Your task to perform on an android device: Open location settings Image 0: 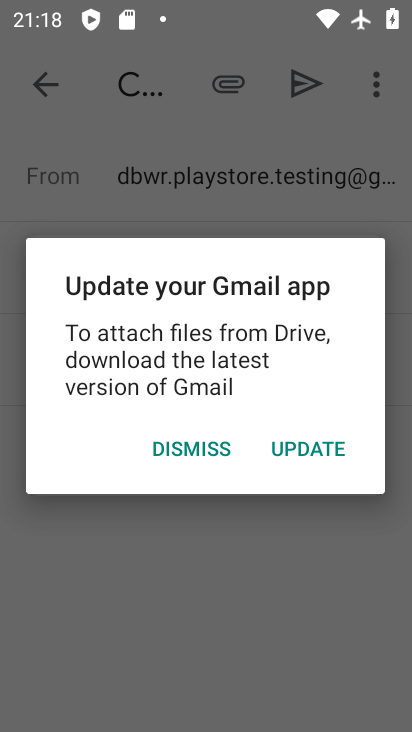
Step 0: press home button
Your task to perform on an android device: Open location settings Image 1: 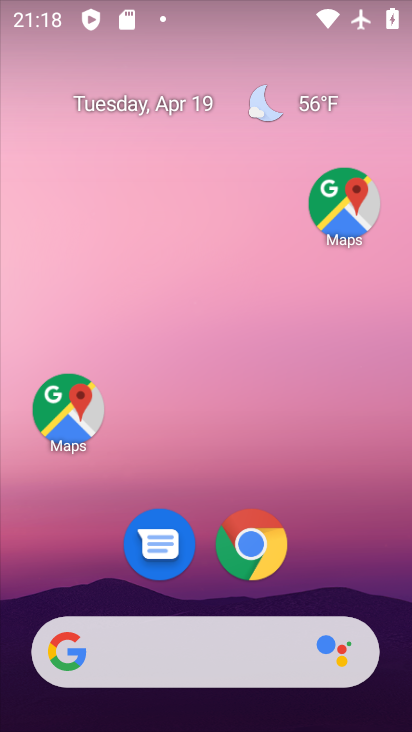
Step 1: drag from (167, 653) to (357, 51)
Your task to perform on an android device: Open location settings Image 2: 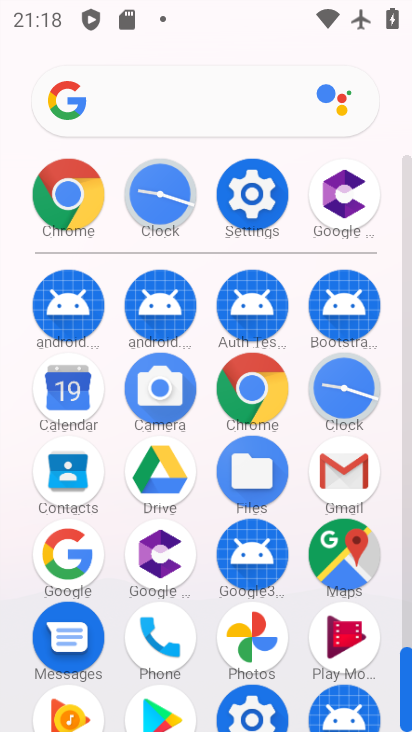
Step 2: click (256, 205)
Your task to perform on an android device: Open location settings Image 3: 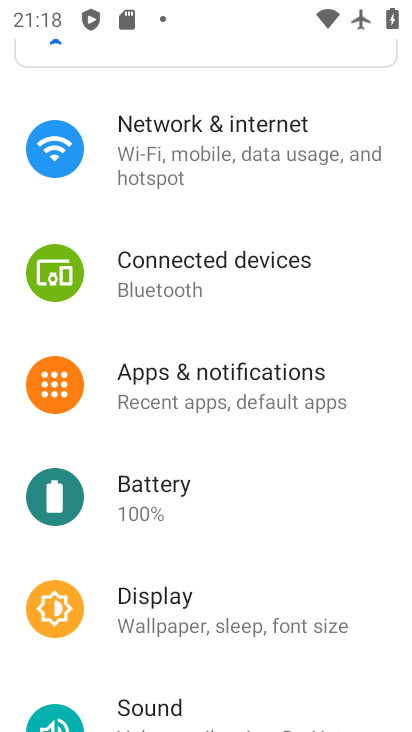
Step 3: drag from (254, 583) to (385, 127)
Your task to perform on an android device: Open location settings Image 4: 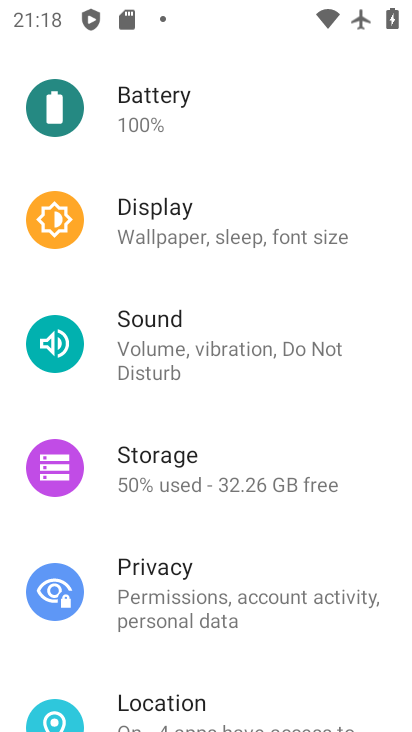
Step 4: drag from (231, 639) to (362, 185)
Your task to perform on an android device: Open location settings Image 5: 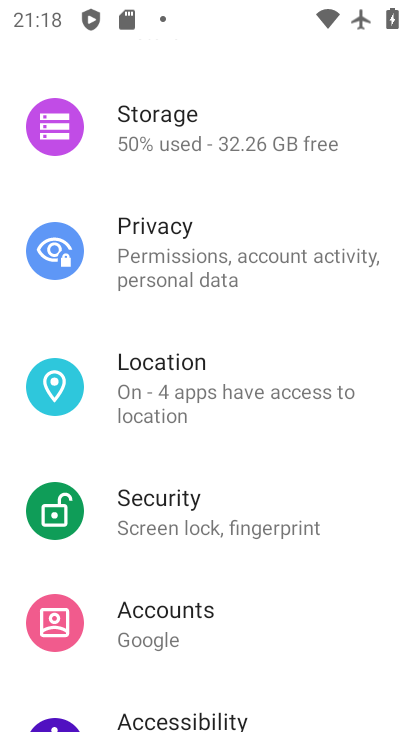
Step 5: click (186, 392)
Your task to perform on an android device: Open location settings Image 6: 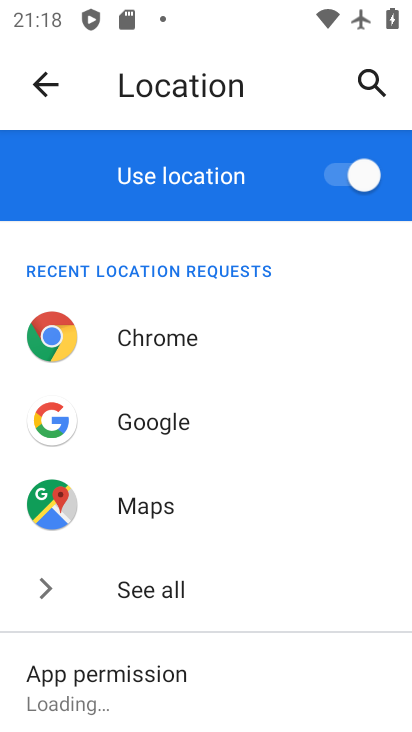
Step 6: task complete